Your task to perform on an android device: Show me productivity apps on the Play Store Image 0: 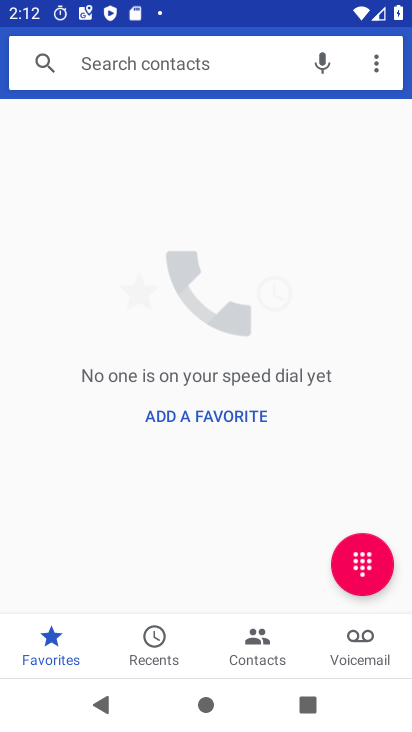
Step 0: press home button
Your task to perform on an android device: Show me productivity apps on the Play Store Image 1: 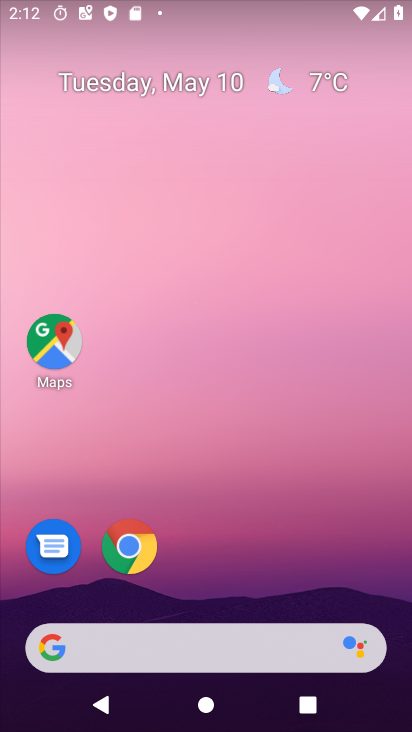
Step 1: drag from (325, 553) to (312, 135)
Your task to perform on an android device: Show me productivity apps on the Play Store Image 2: 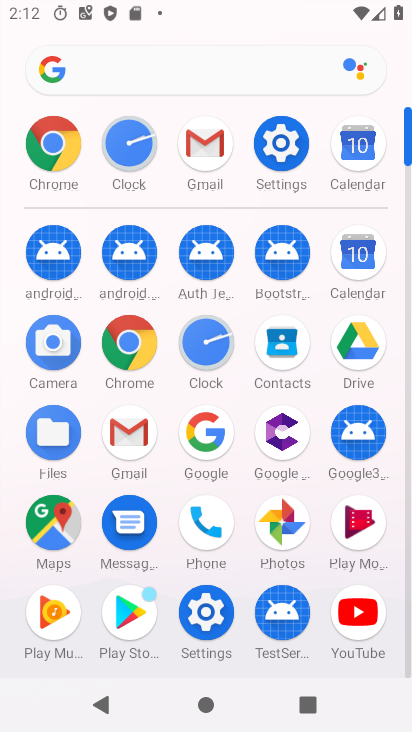
Step 2: click (119, 602)
Your task to perform on an android device: Show me productivity apps on the Play Store Image 3: 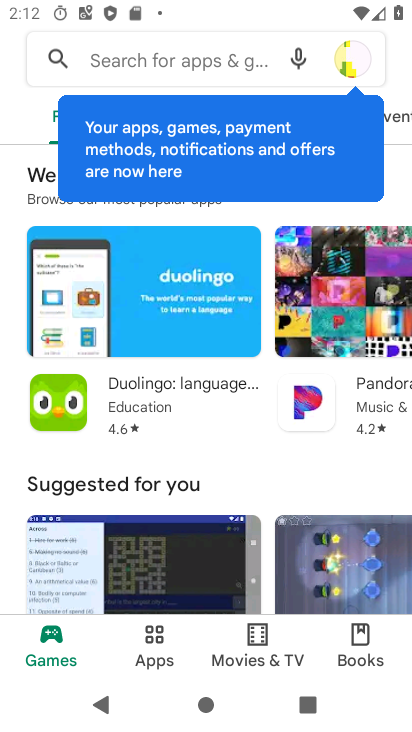
Step 3: click (151, 63)
Your task to perform on an android device: Show me productivity apps on the Play Store Image 4: 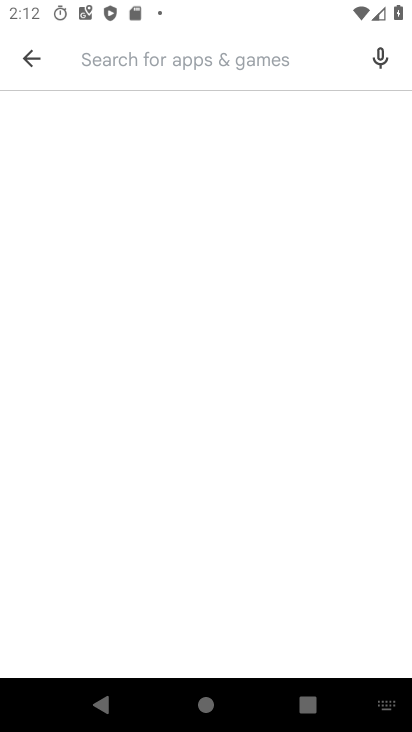
Step 4: type "producttivity apss"
Your task to perform on an android device: Show me productivity apps on the Play Store Image 5: 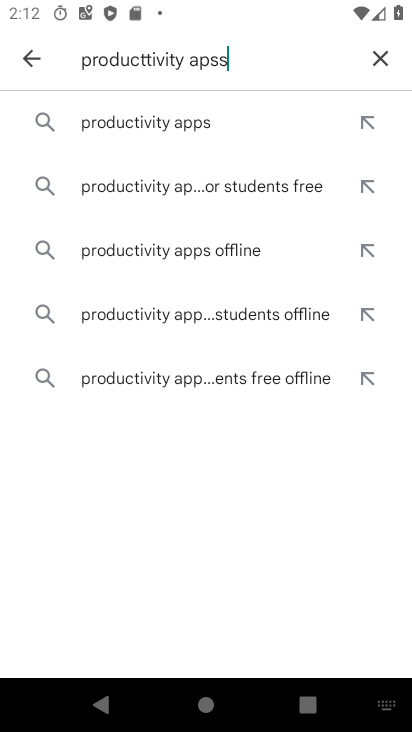
Step 5: click (141, 132)
Your task to perform on an android device: Show me productivity apps on the Play Store Image 6: 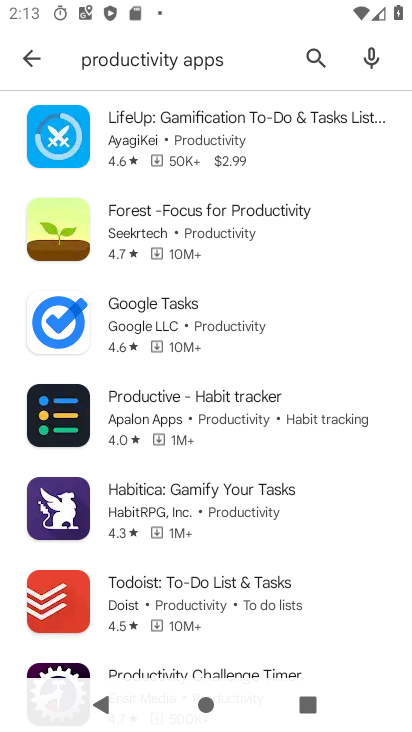
Step 6: task complete